Your task to perform on an android device: turn off sleep mode Image 0: 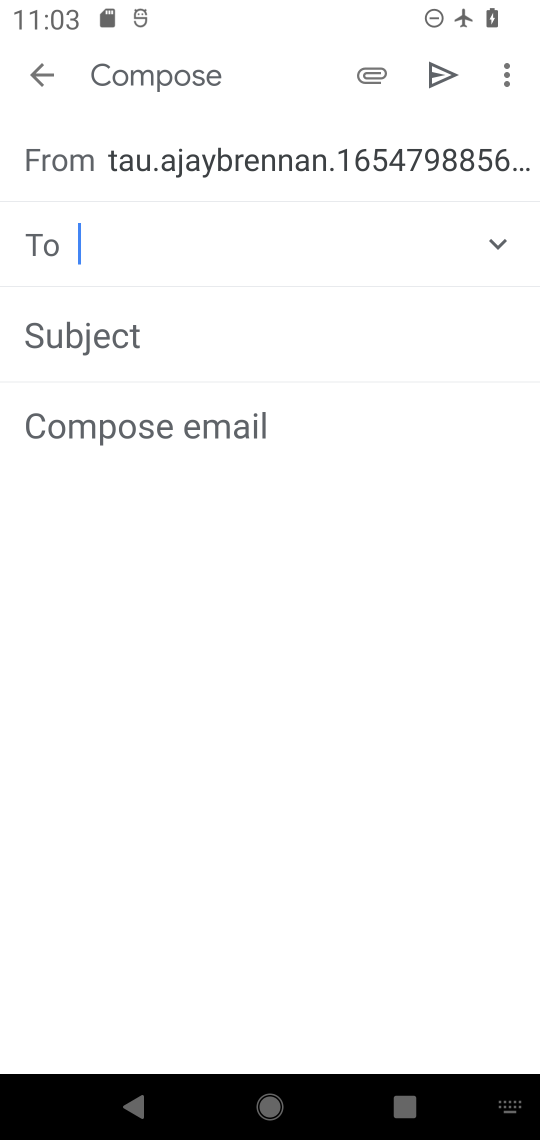
Step 0: press home button
Your task to perform on an android device: turn off sleep mode Image 1: 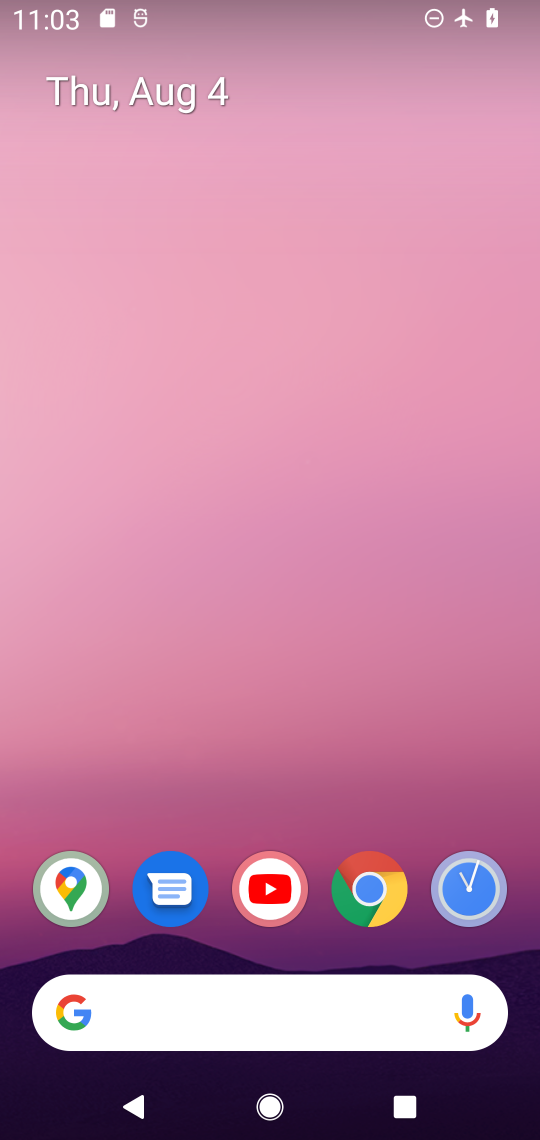
Step 1: drag from (392, 814) to (400, 241)
Your task to perform on an android device: turn off sleep mode Image 2: 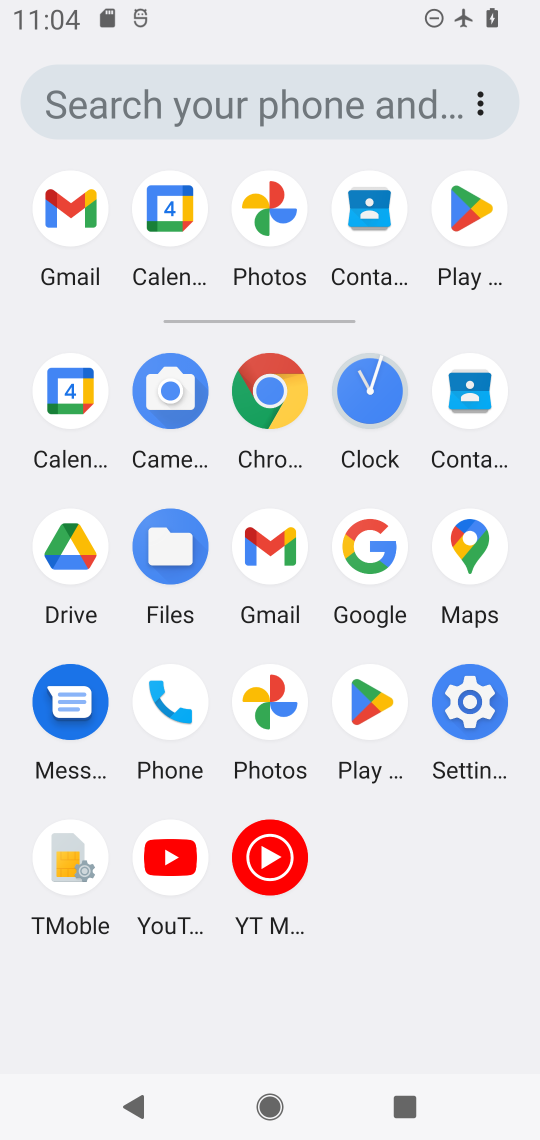
Step 2: click (475, 701)
Your task to perform on an android device: turn off sleep mode Image 3: 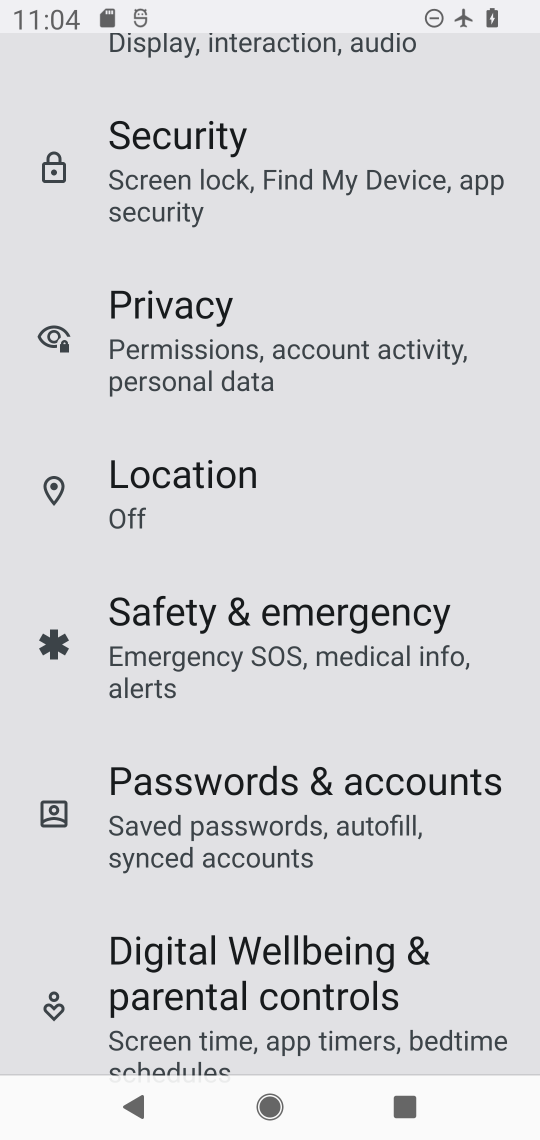
Step 3: drag from (457, 458) to (463, 767)
Your task to perform on an android device: turn off sleep mode Image 4: 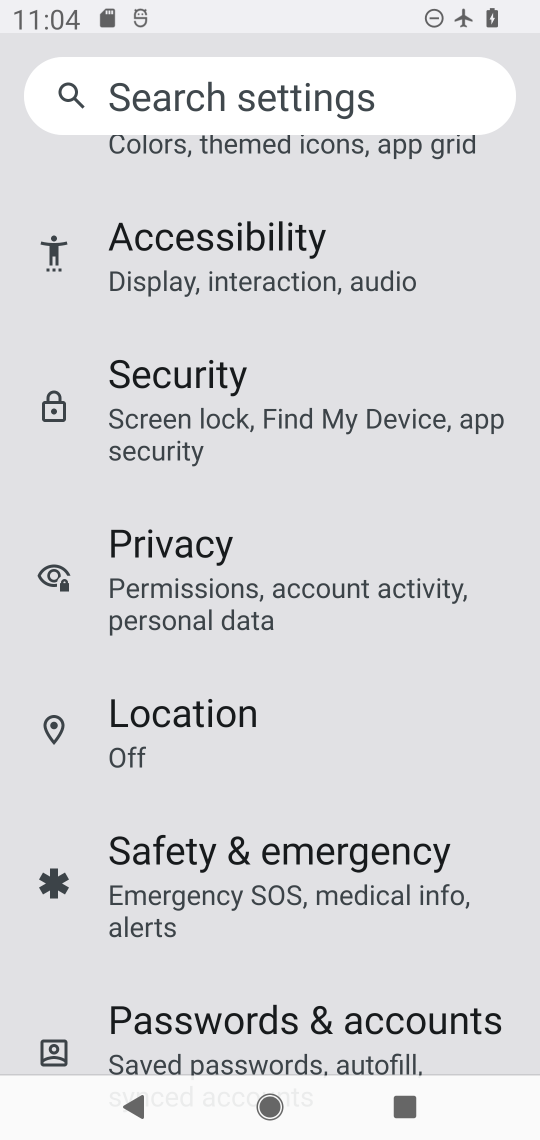
Step 4: drag from (460, 416) to (486, 713)
Your task to perform on an android device: turn off sleep mode Image 5: 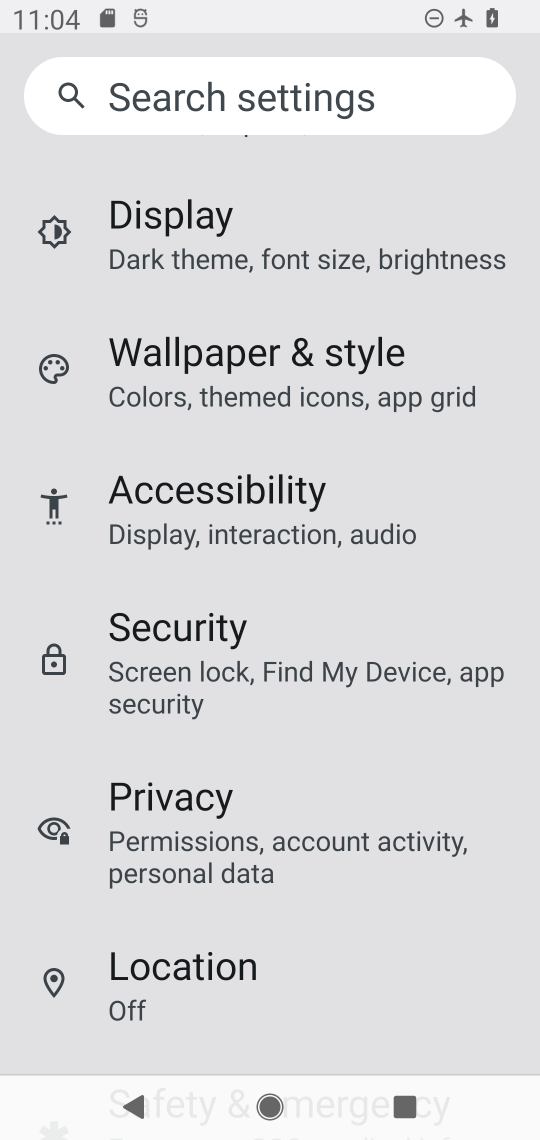
Step 5: drag from (467, 422) to (465, 746)
Your task to perform on an android device: turn off sleep mode Image 6: 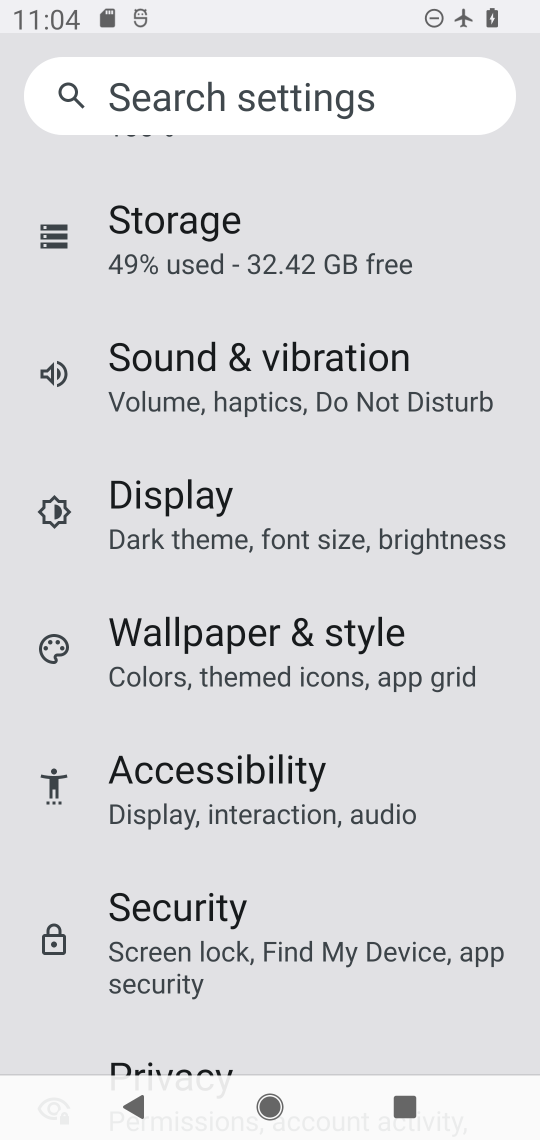
Step 6: drag from (466, 310) to (461, 607)
Your task to perform on an android device: turn off sleep mode Image 7: 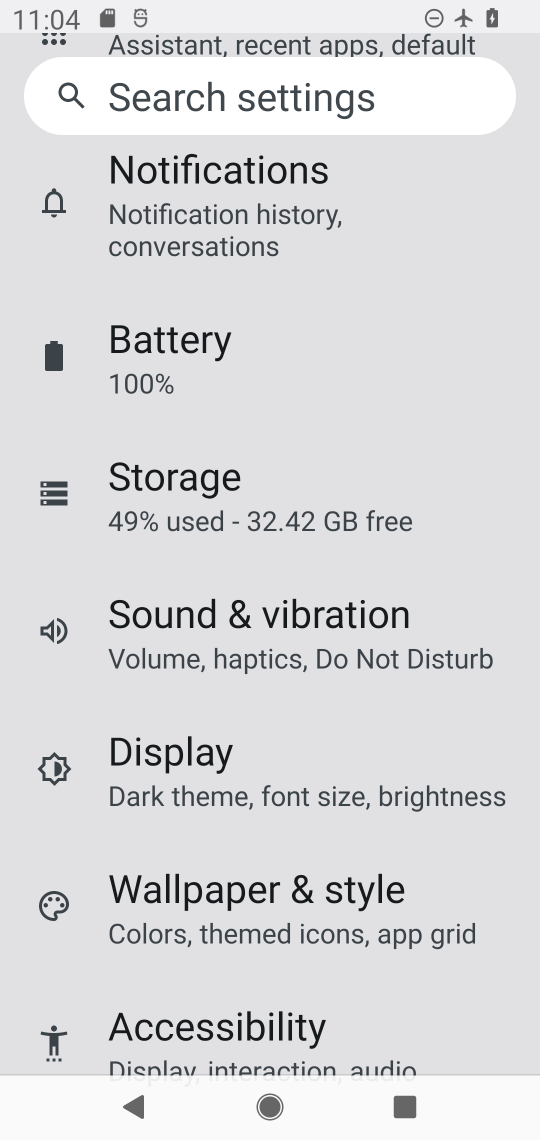
Step 7: click (315, 773)
Your task to perform on an android device: turn off sleep mode Image 8: 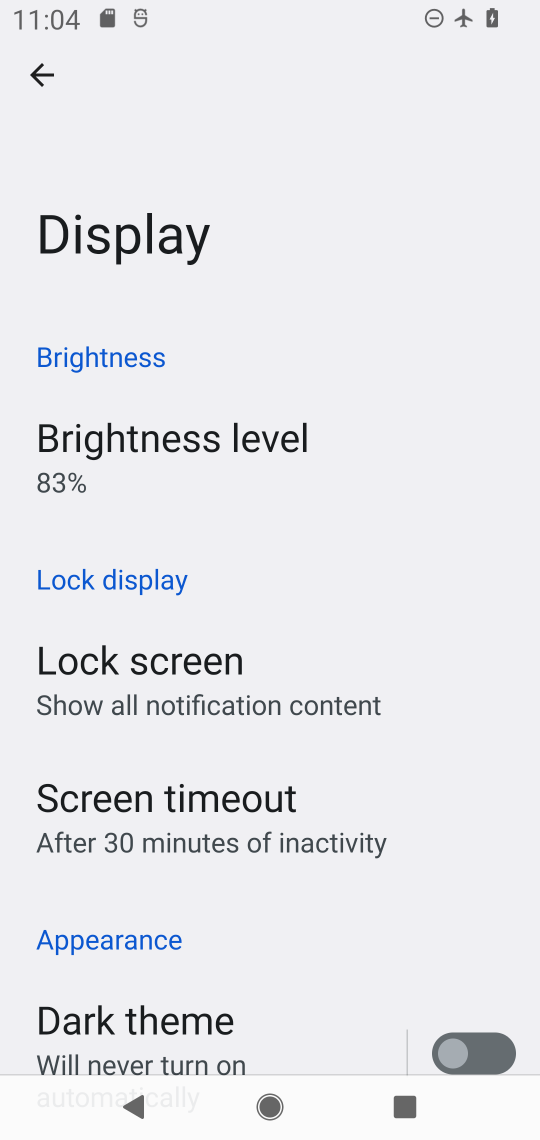
Step 8: task complete